Your task to perform on an android device: Open battery settings Image 0: 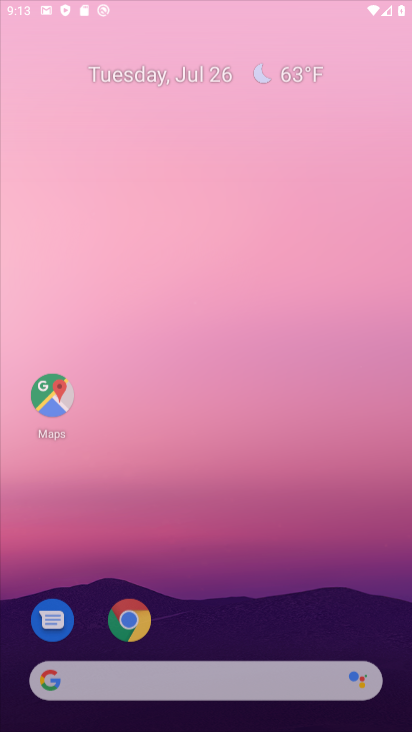
Step 0: press home button
Your task to perform on an android device: Open battery settings Image 1: 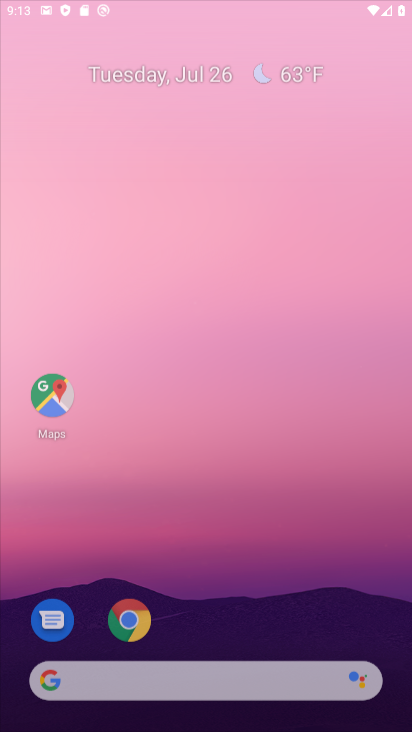
Step 1: click (293, 263)
Your task to perform on an android device: Open battery settings Image 2: 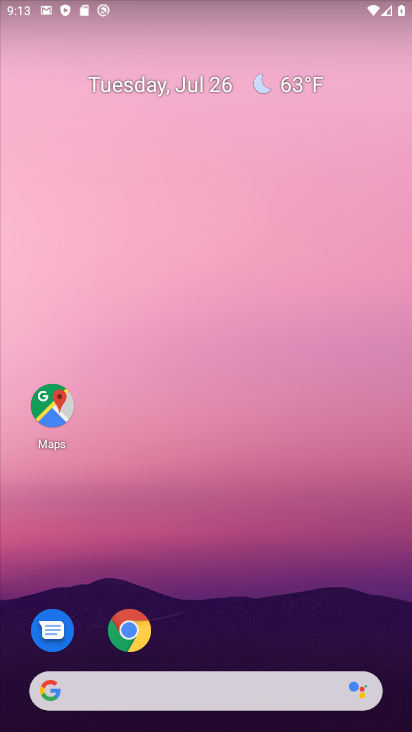
Step 2: drag from (217, 655) to (267, 115)
Your task to perform on an android device: Open battery settings Image 3: 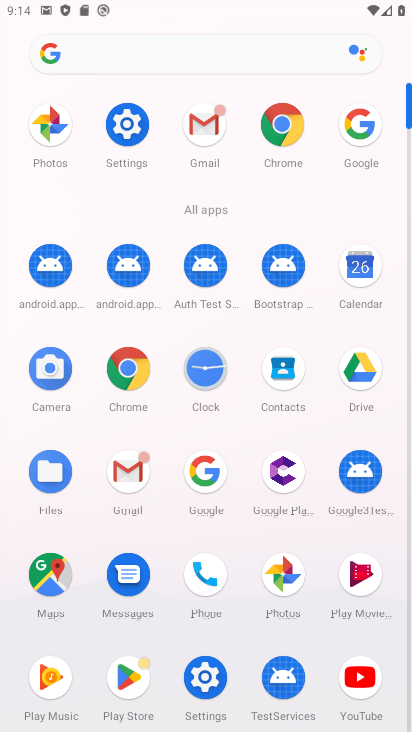
Step 3: click (122, 117)
Your task to perform on an android device: Open battery settings Image 4: 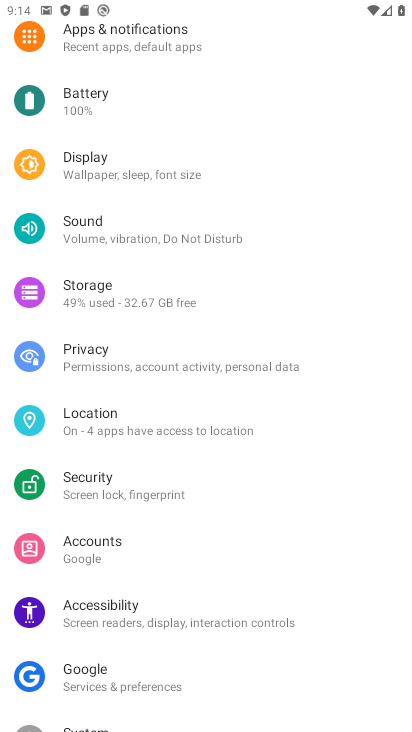
Step 4: click (120, 93)
Your task to perform on an android device: Open battery settings Image 5: 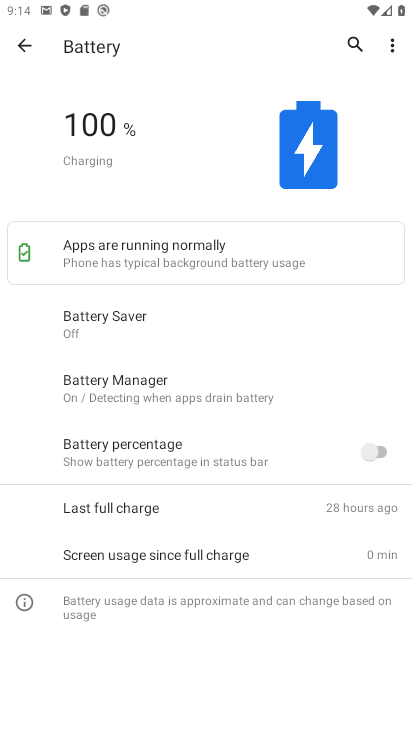
Step 5: task complete